Your task to perform on an android device: read, delete, or share a saved page in the chrome app Image 0: 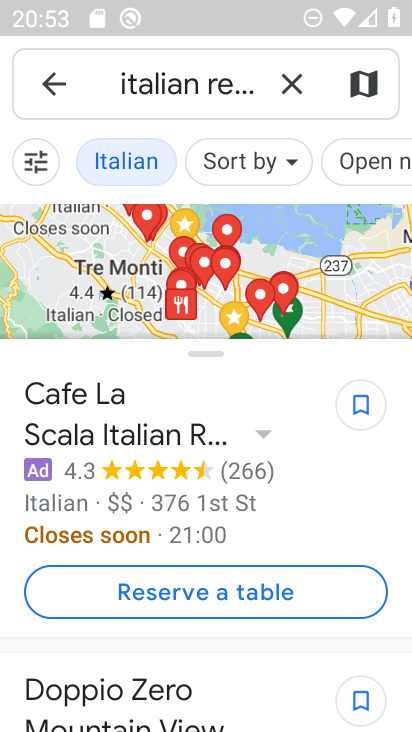
Step 0: press home button
Your task to perform on an android device: read, delete, or share a saved page in the chrome app Image 1: 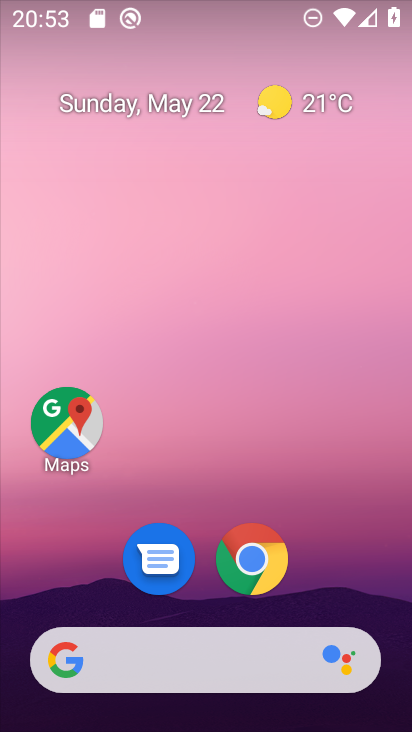
Step 1: drag from (254, 697) to (242, 177)
Your task to perform on an android device: read, delete, or share a saved page in the chrome app Image 2: 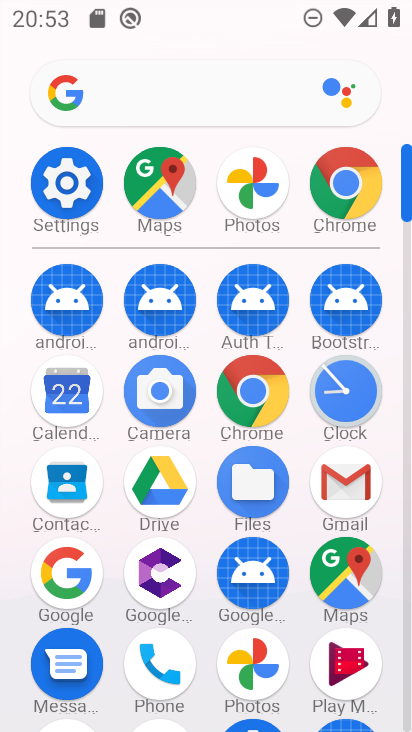
Step 2: click (329, 192)
Your task to perform on an android device: read, delete, or share a saved page in the chrome app Image 3: 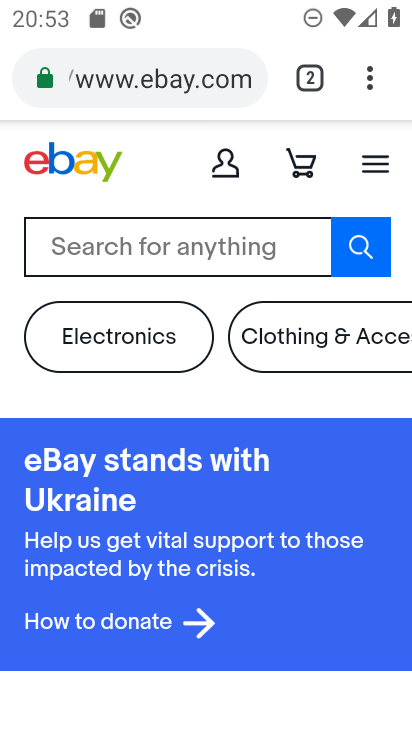
Step 3: click (367, 93)
Your task to perform on an android device: read, delete, or share a saved page in the chrome app Image 4: 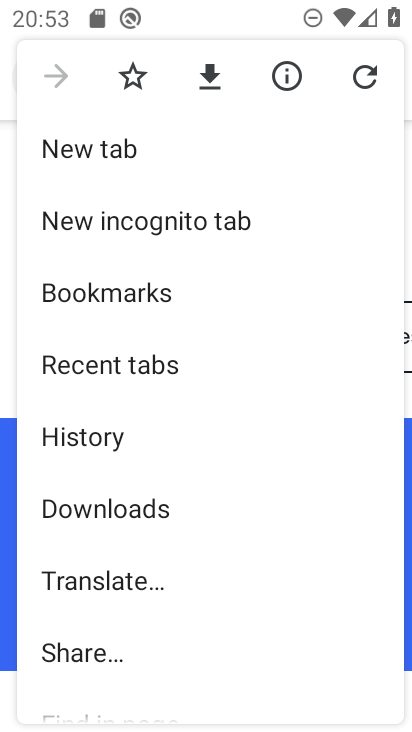
Step 4: click (140, 660)
Your task to perform on an android device: read, delete, or share a saved page in the chrome app Image 5: 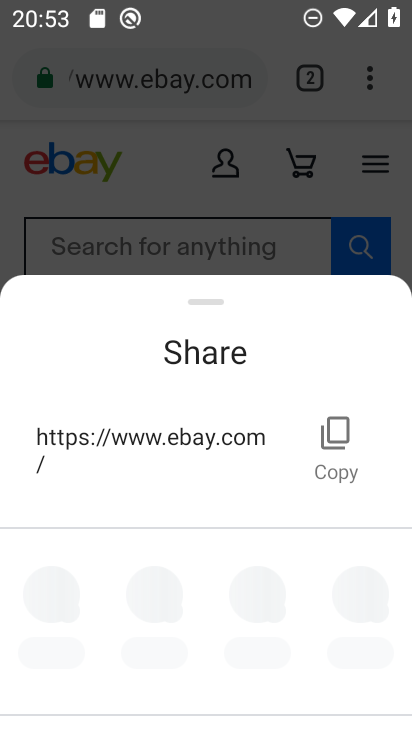
Step 5: task complete